Your task to perform on an android device: change notifications settings Image 0: 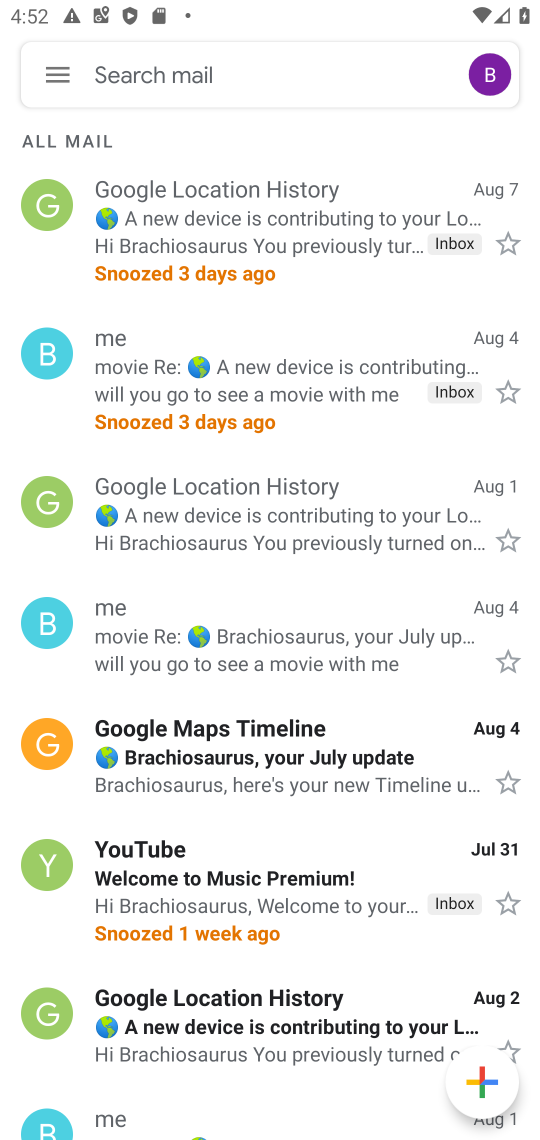
Step 0: press home button
Your task to perform on an android device: change notifications settings Image 1: 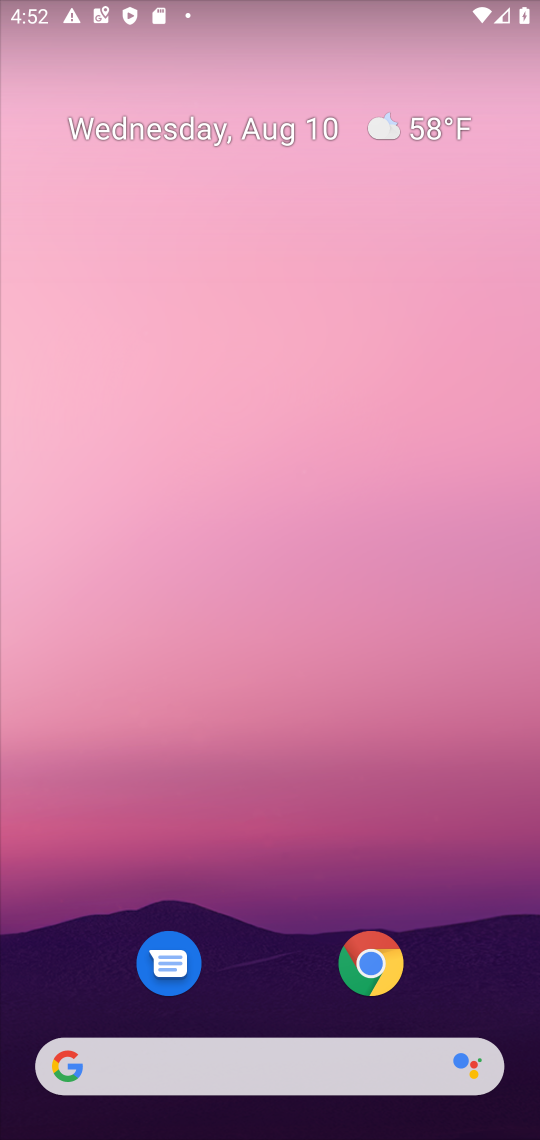
Step 1: drag from (272, 1005) to (336, 109)
Your task to perform on an android device: change notifications settings Image 2: 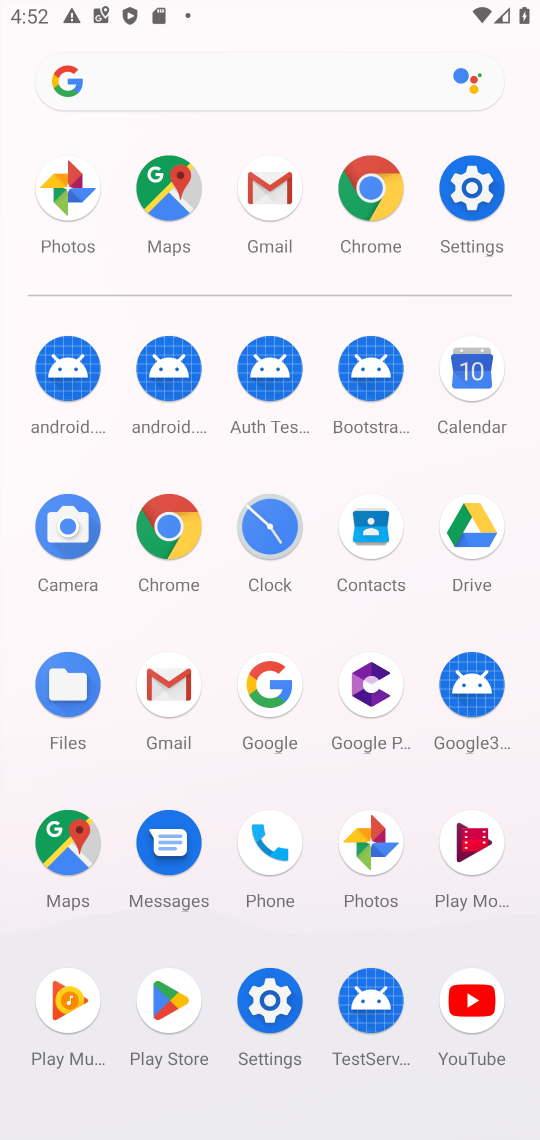
Step 2: click (273, 984)
Your task to perform on an android device: change notifications settings Image 3: 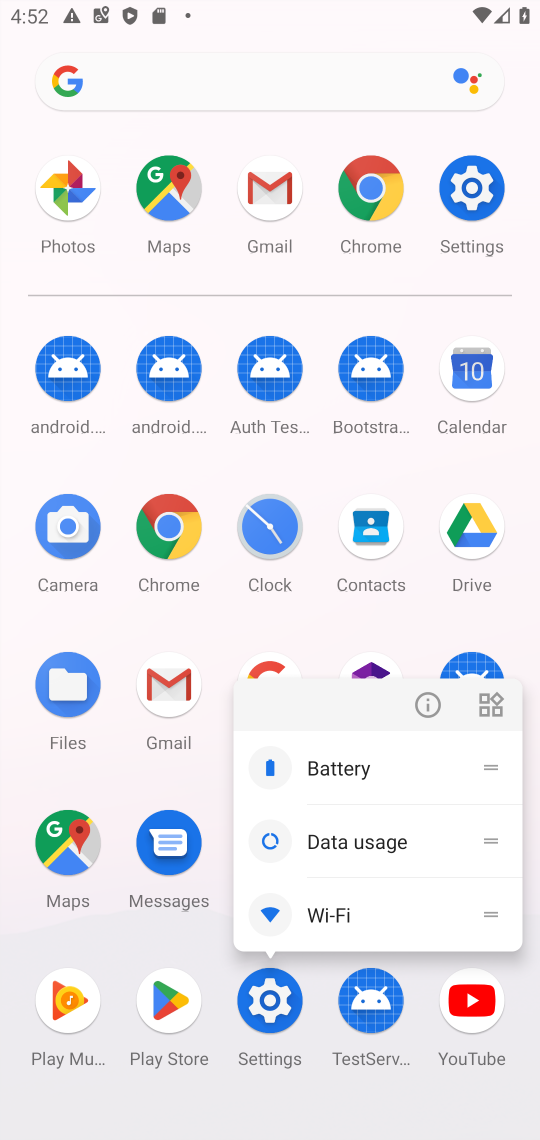
Step 3: click (258, 989)
Your task to perform on an android device: change notifications settings Image 4: 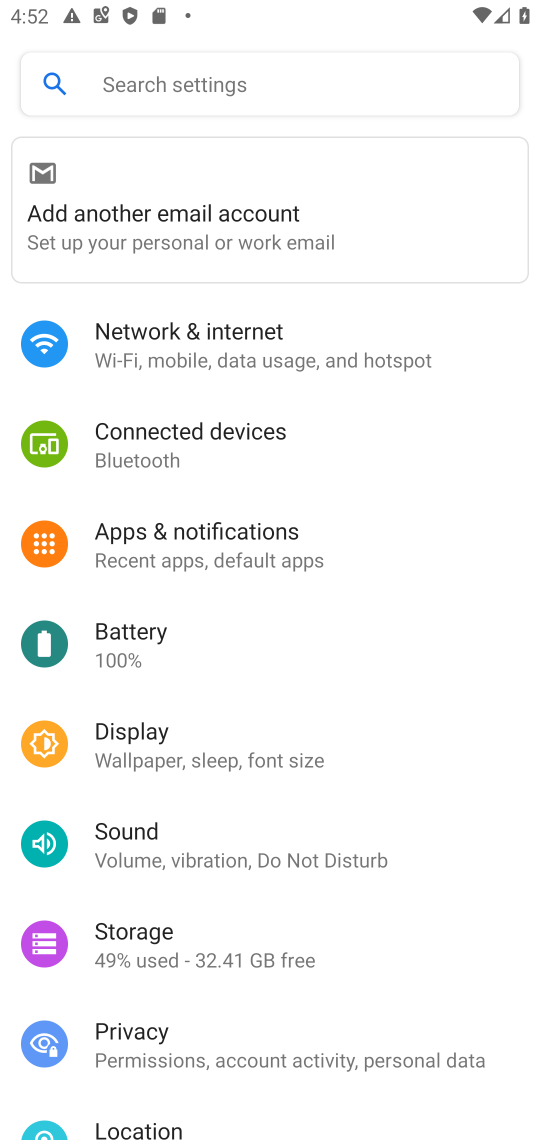
Step 4: click (220, 529)
Your task to perform on an android device: change notifications settings Image 5: 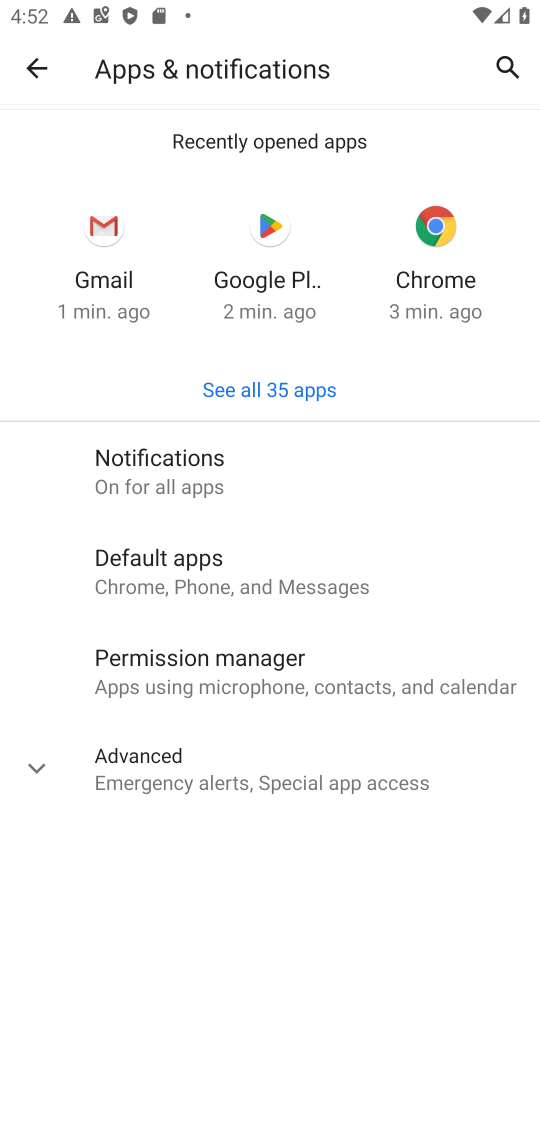
Step 5: click (173, 485)
Your task to perform on an android device: change notifications settings Image 6: 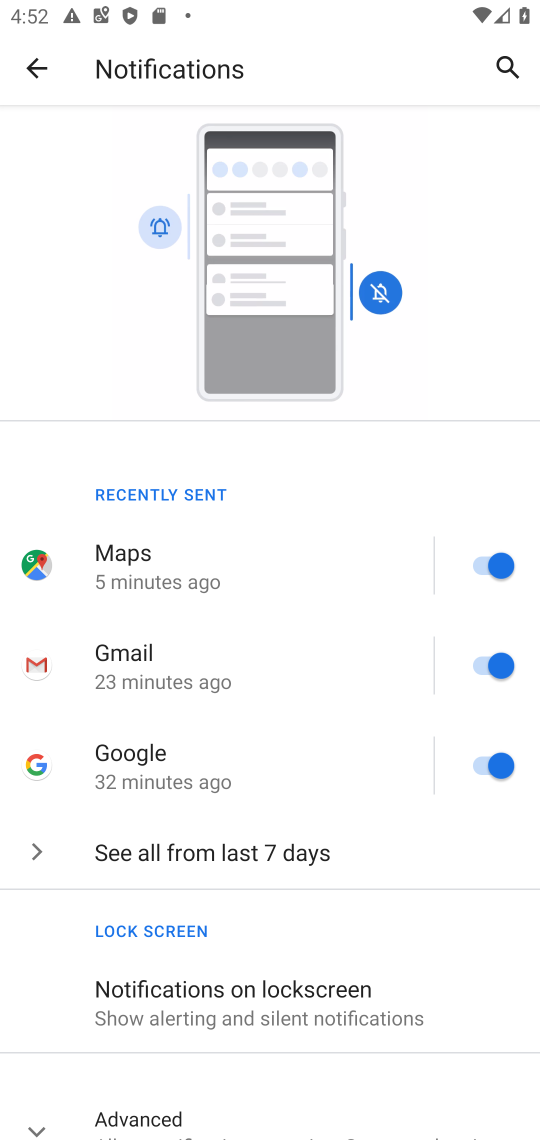
Step 6: task complete